Your task to perform on an android device: Search for the best rated headphones on amazon.com Image 0: 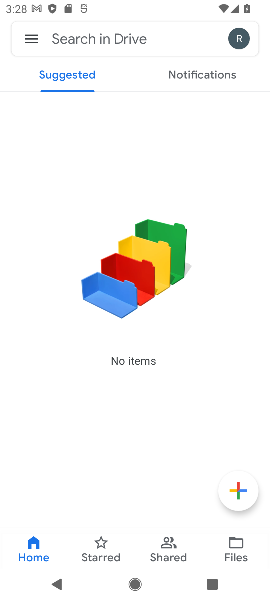
Step 0: press home button
Your task to perform on an android device: Search for the best rated headphones on amazon.com Image 1: 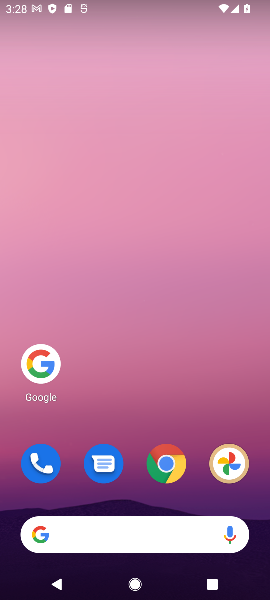
Step 1: click (46, 359)
Your task to perform on an android device: Search for the best rated headphones on amazon.com Image 2: 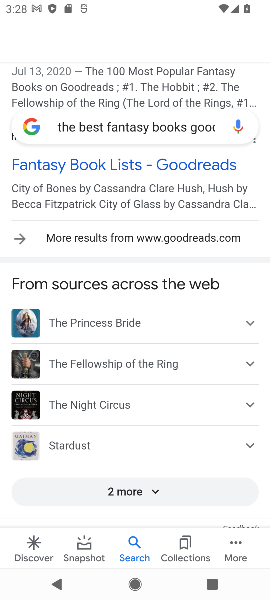
Step 2: click (149, 126)
Your task to perform on an android device: Search for the best rated headphones on amazon.com Image 3: 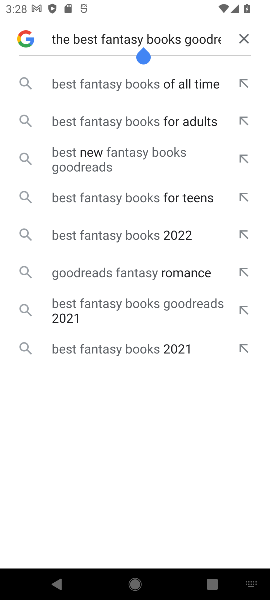
Step 3: click (239, 35)
Your task to perform on an android device: Search for the best rated headphones on amazon.com Image 4: 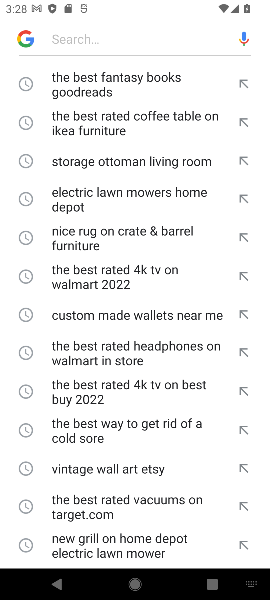
Step 4: click (151, 35)
Your task to perform on an android device: Search for the best rated headphones on amazon.com Image 5: 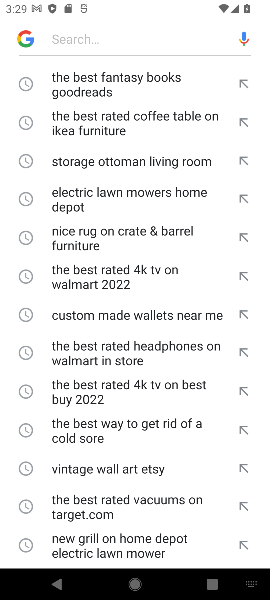
Step 5: type "the best rated headphones on amazon.com "
Your task to perform on an android device: Search for the best rated headphones on amazon.com Image 6: 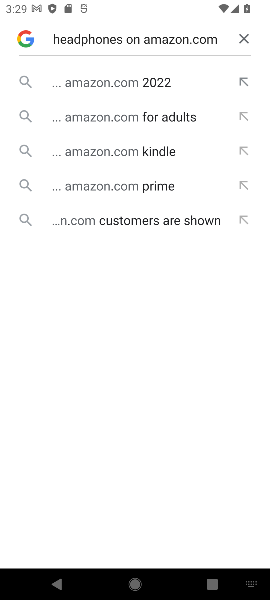
Step 6: click (92, 79)
Your task to perform on an android device: Search for the best rated headphones on amazon.com Image 7: 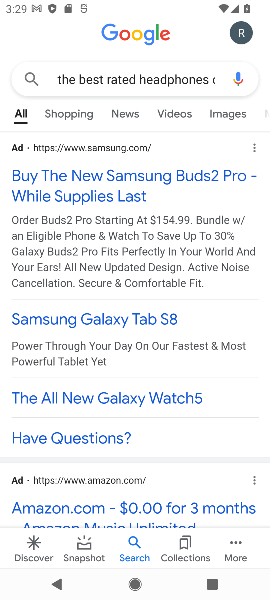
Step 7: click (52, 196)
Your task to perform on an android device: Search for the best rated headphones on amazon.com Image 8: 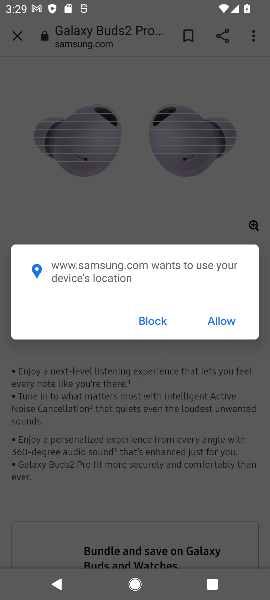
Step 8: click (233, 321)
Your task to perform on an android device: Search for the best rated headphones on amazon.com Image 9: 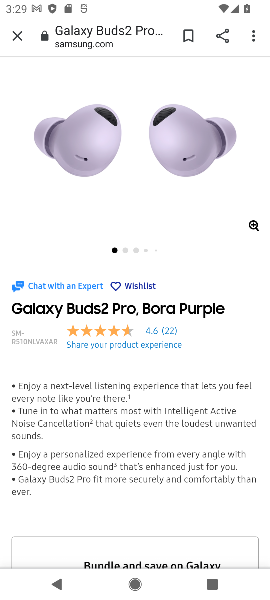
Step 9: task complete